Your task to perform on an android device: turn off smart reply in the gmail app Image 0: 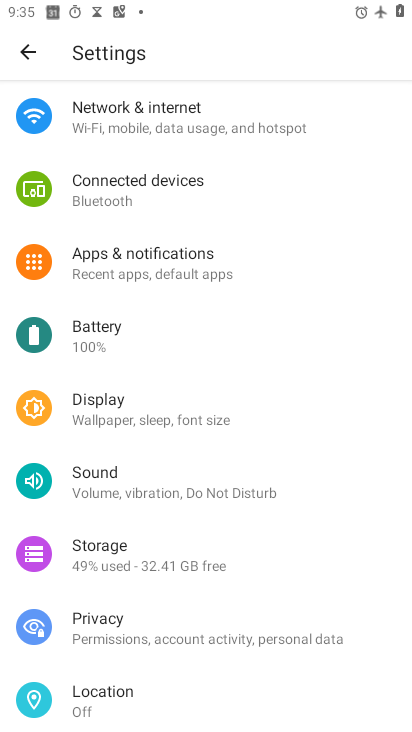
Step 0: drag from (213, 151) to (291, 610)
Your task to perform on an android device: turn off smart reply in the gmail app Image 1: 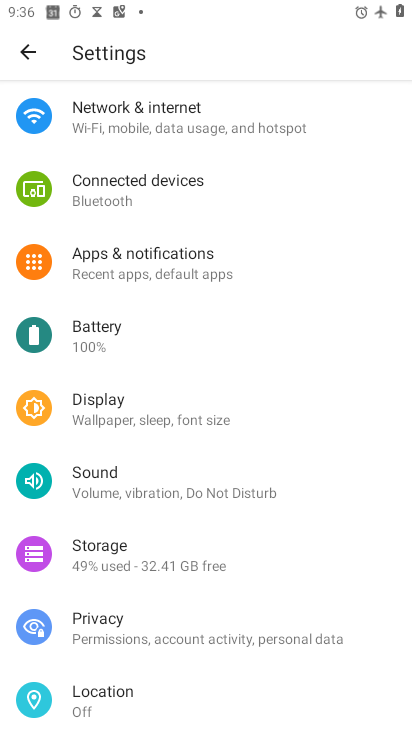
Step 1: press home button
Your task to perform on an android device: turn off smart reply in the gmail app Image 2: 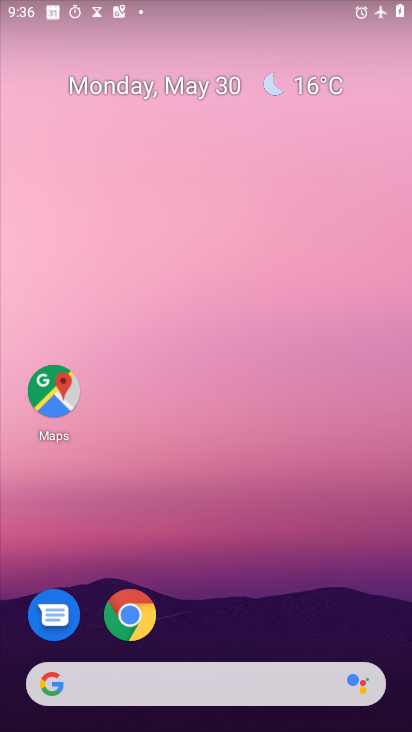
Step 2: drag from (302, 598) to (303, 0)
Your task to perform on an android device: turn off smart reply in the gmail app Image 3: 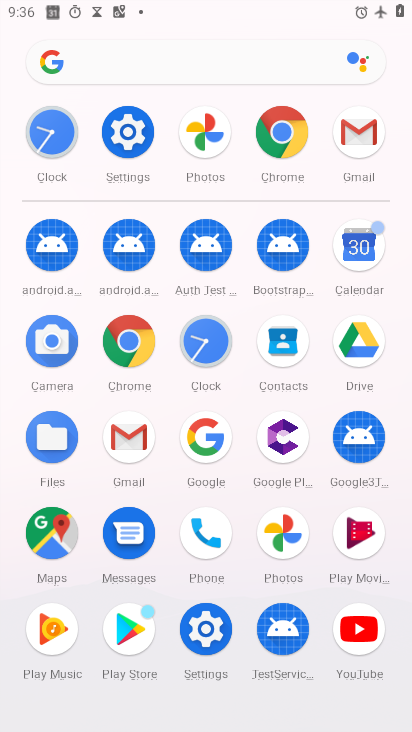
Step 3: click (346, 182)
Your task to perform on an android device: turn off smart reply in the gmail app Image 4: 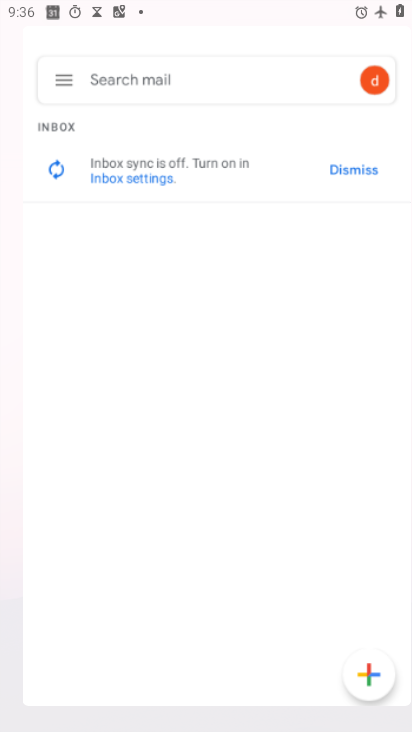
Step 4: click (378, 140)
Your task to perform on an android device: turn off smart reply in the gmail app Image 5: 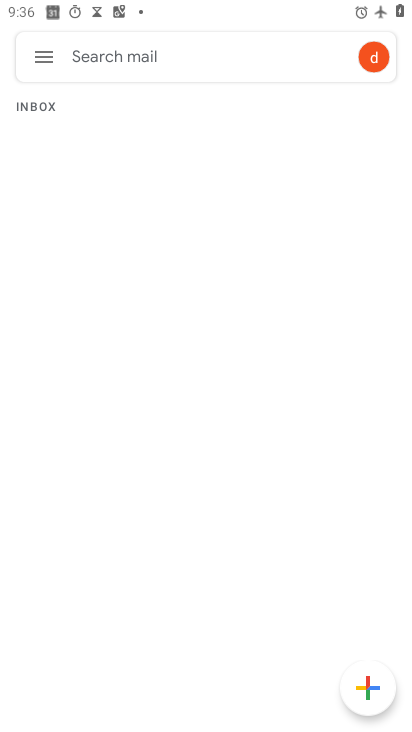
Step 5: click (55, 59)
Your task to perform on an android device: turn off smart reply in the gmail app Image 6: 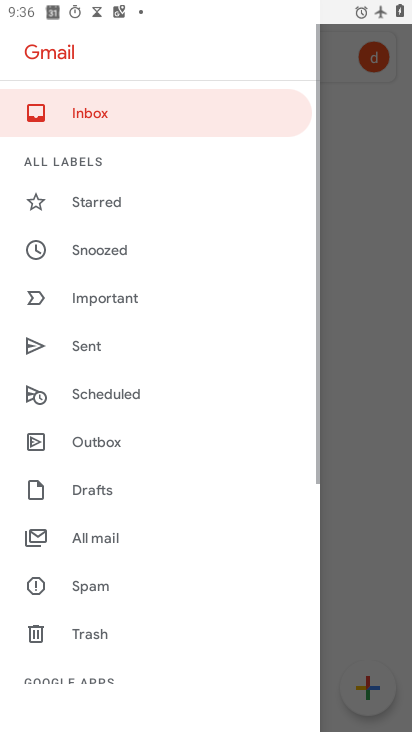
Step 6: drag from (131, 604) to (224, 88)
Your task to perform on an android device: turn off smart reply in the gmail app Image 7: 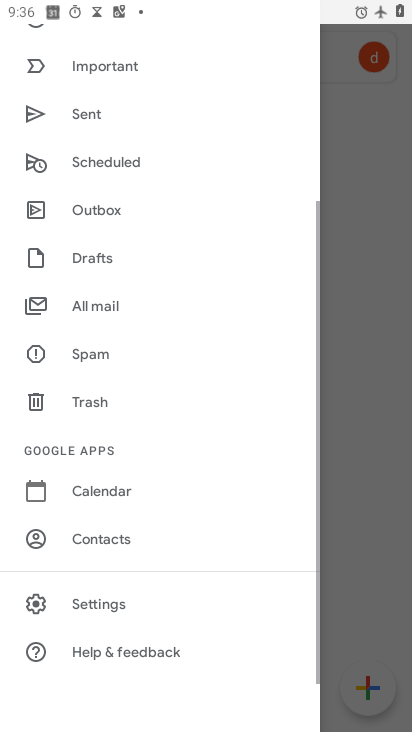
Step 7: click (86, 613)
Your task to perform on an android device: turn off smart reply in the gmail app Image 8: 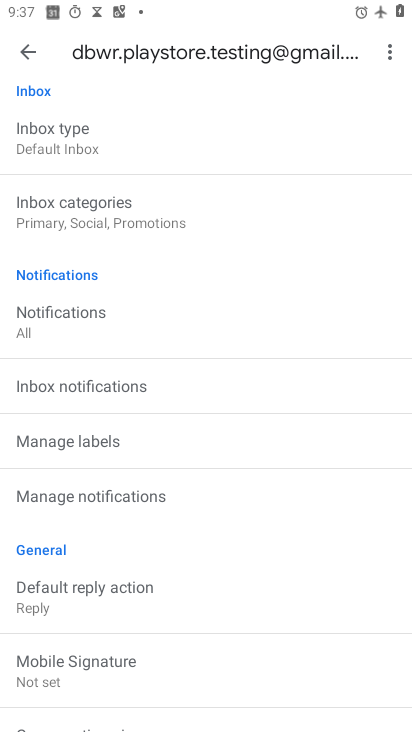
Step 8: drag from (205, 583) to (152, 194)
Your task to perform on an android device: turn off smart reply in the gmail app Image 9: 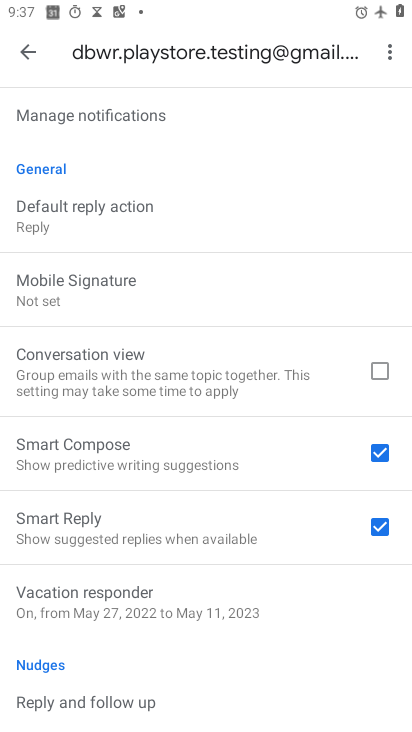
Step 9: click (395, 527)
Your task to perform on an android device: turn off smart reply in the gmail app Image 10: 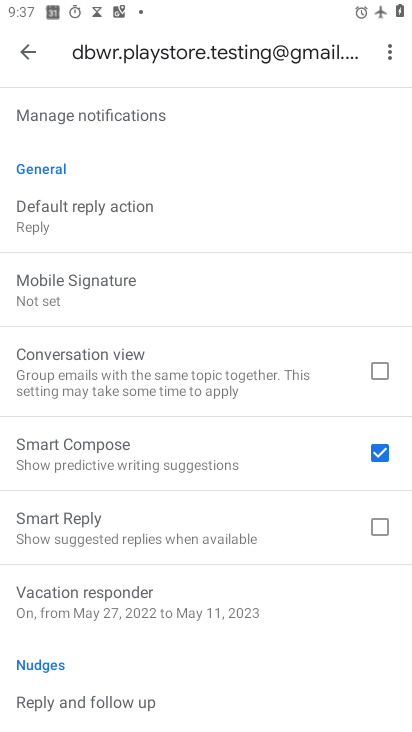
Step 10: task complete